Your task to perform on an android device: delete location history Image 0: 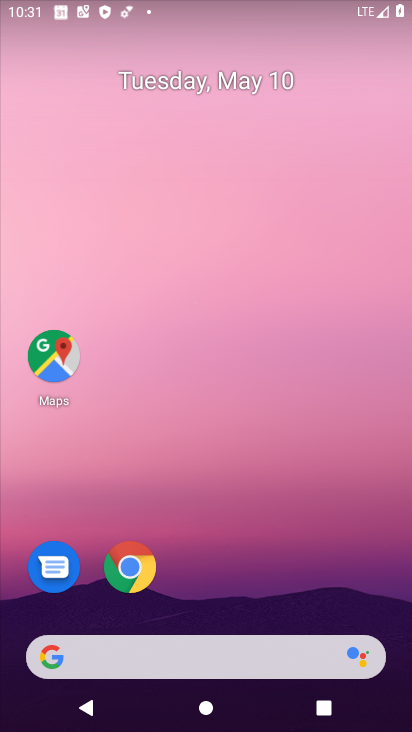
Step 0: press home button
Your task to perform on an android device: delete location history Image 1: 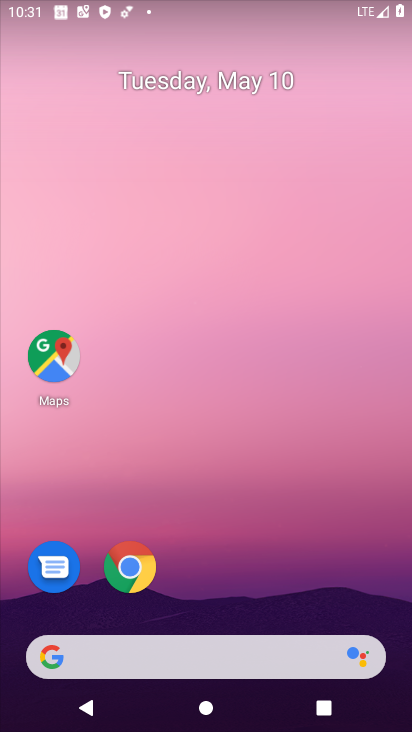
Step 1: drag from (33, 559) to (172, 189)
Your task to perform on an android device: delete location history Image 2: 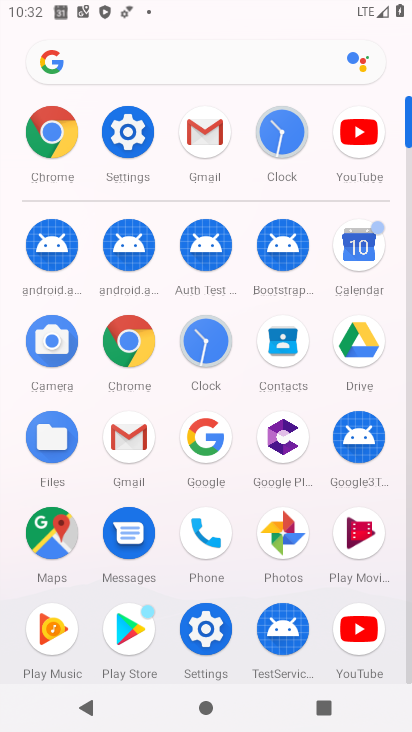
Step 2: click (117, 142)
Your task to perform on an android device: delete location history Image 3: 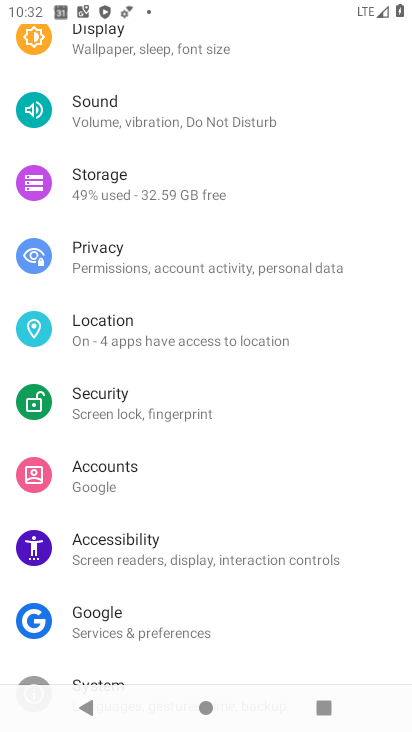
Step 3: click (128, 326)
Your task to perform on an android device: delete location history Image 4: 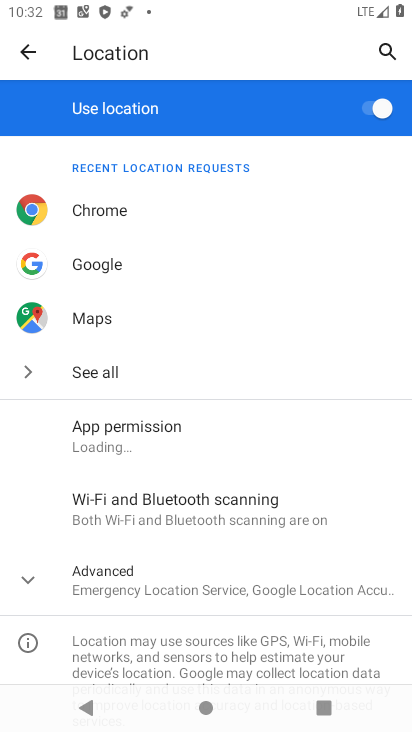
Step 4: click (185, 586)
Your task to perform on an android device: delete location history Image 5: 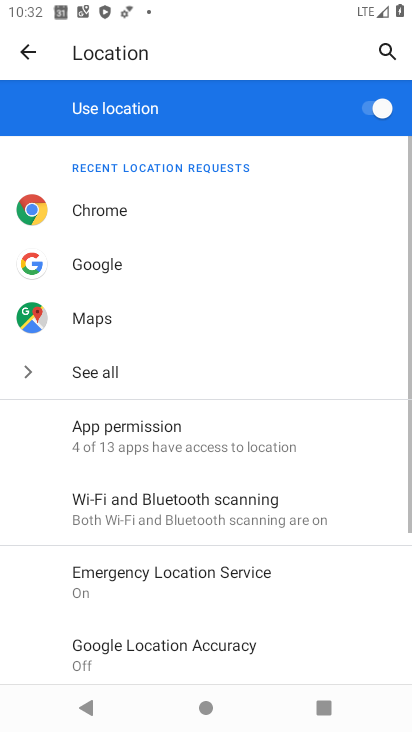
Step 5: drag from (101, 649) to (229, 231)
Your task to perform on an android device: delete location history Image 6: 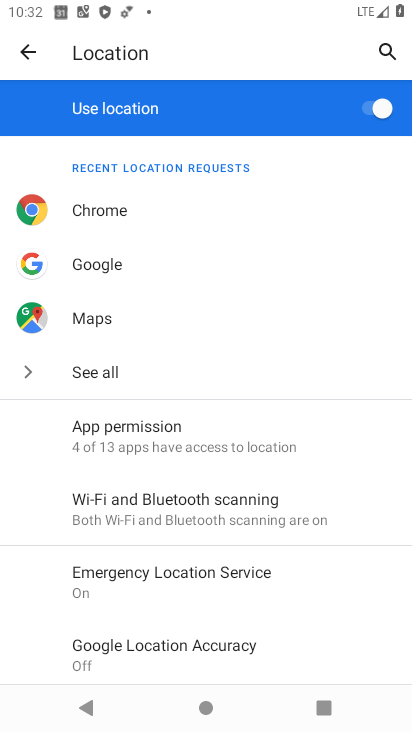
Step 6: drag from (96, 649) to (252, 174)
Your task to perform on an android device: delete location history Image 7: 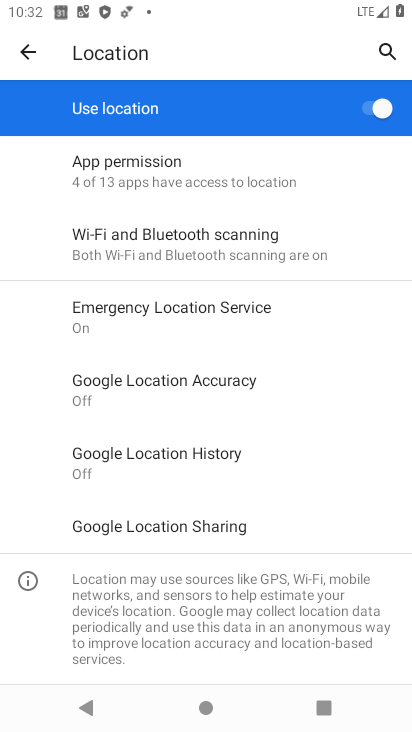
Step 7: click (154, 450)
Your task to perform on an android device: delete location history Image 8: 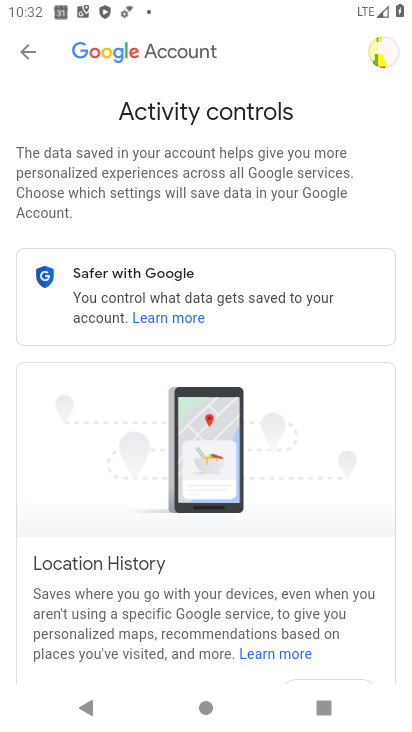
Step 8: drag from (219, 639) to (291, 255)
Your task to perform on an android device: delete location history Image 9: 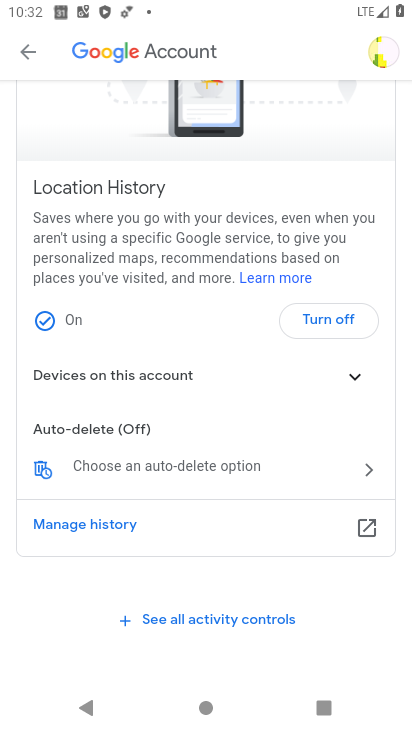
Step 9: click (281, 473)
Your task to perform on an android device: delete location history Image 10: 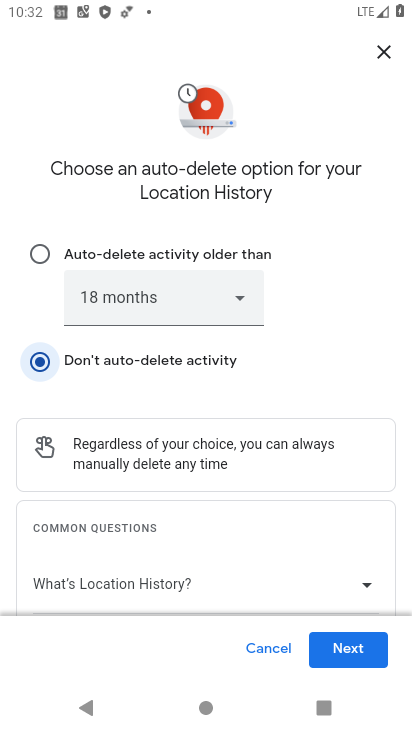
Step 10: click (186, 289)
Your task to perform on an android device: delete location history Image 11: 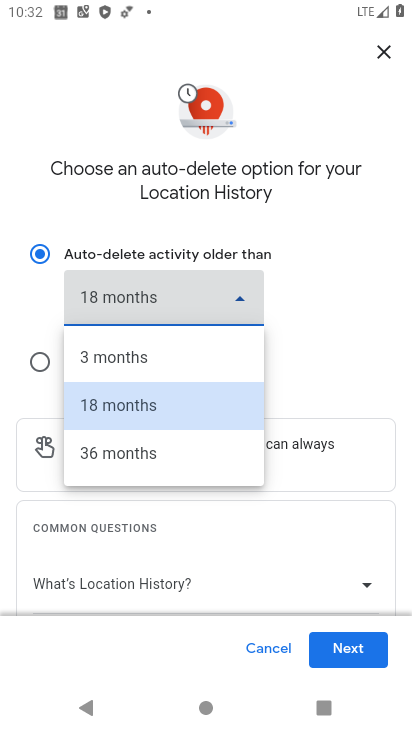
Step 11: click (151, 364)
Your task to perform on an android device: delete location history Image 12: 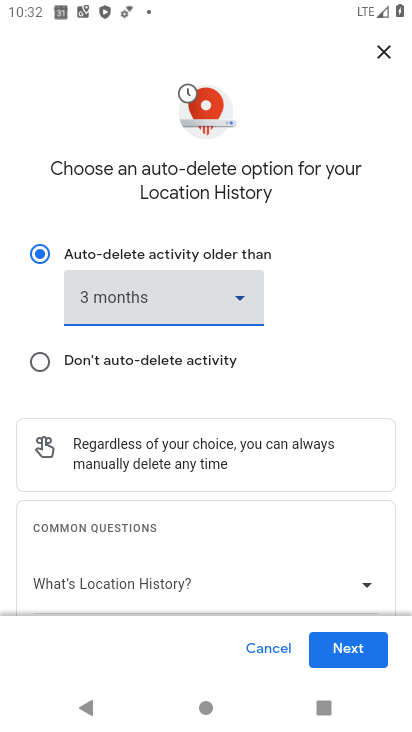
Step 12: click (360, 650)
Your task to perform on an android device: delete location history Image 13: 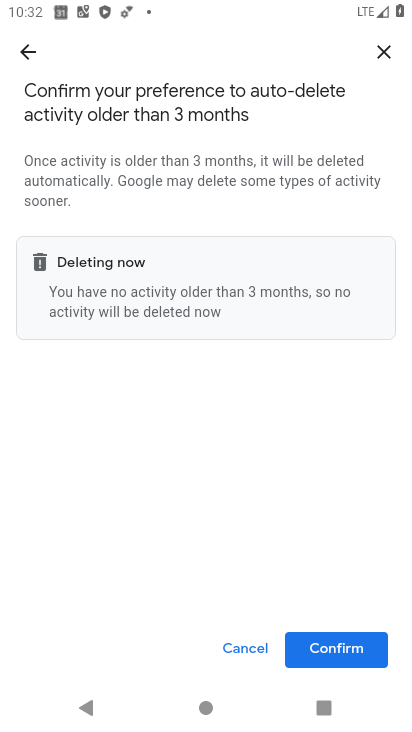
Step 13: task complete